Your task to perform on an android device: allow cookies in the chrome app Image 0: 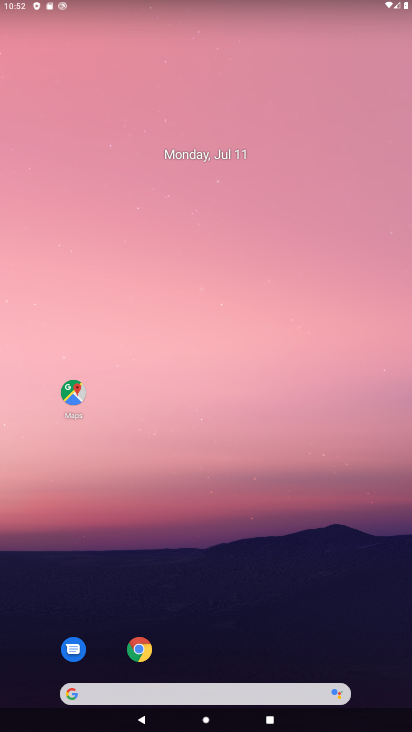
Step 0: click (141, 647)
Your task to perform on an android device: allow cookies in the chrome app Image 1: 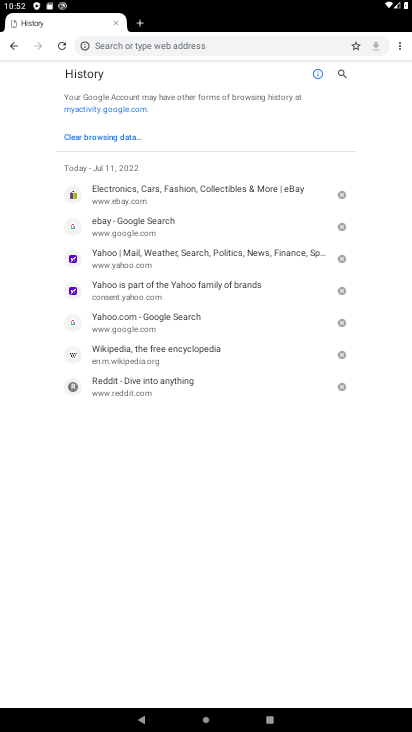
Step 1: click (401, 46)
Your task to perform on an android device: allow cookies in the chrome app Image 2: 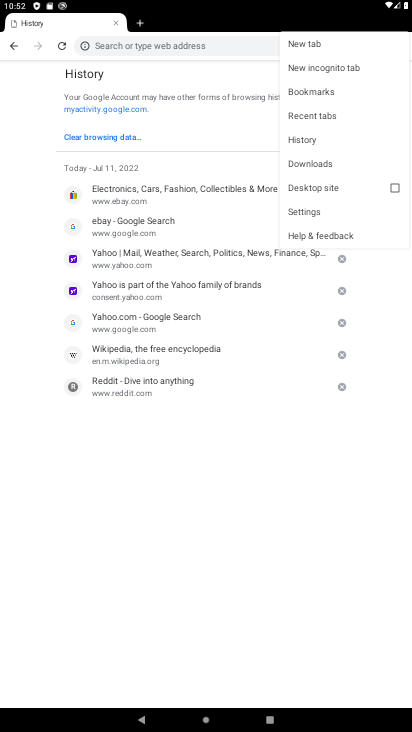
Step 2: click (315, 210)
Your task to perform on an android device: allow cookies in the chrome app Image 3: 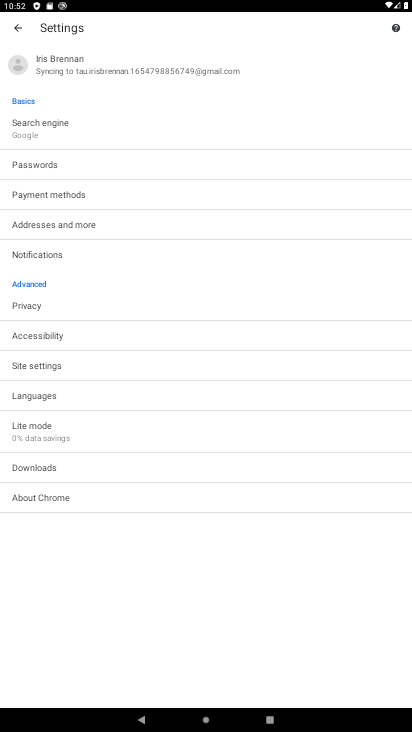
Step 3: click (50, 366)
Your task to perform on an android device: allow cookies in the chrome app Image 4: 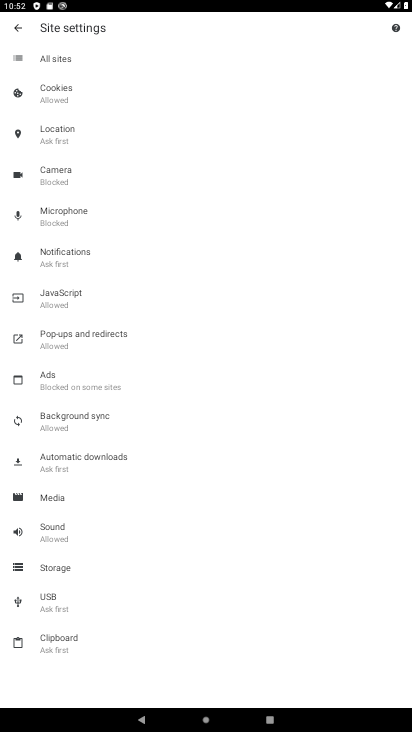
Step 4: click (80, 90)
Your task to perform on an android device: allow cookies in the chrome app Image 5: 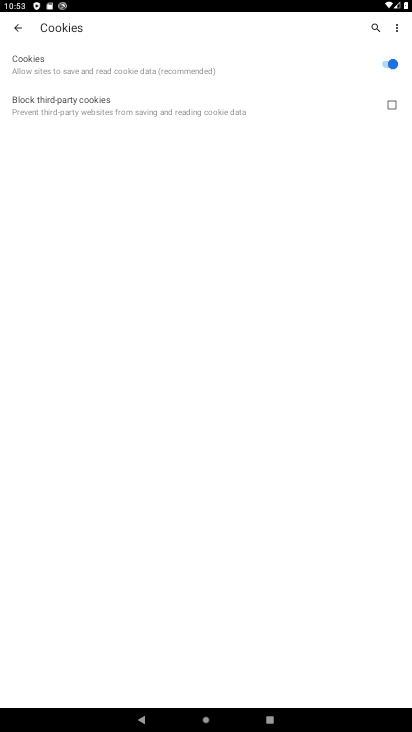
Step 5: click (385, 106)
Your task to perform on an android device: allow cookies in the chrome app Image 6: 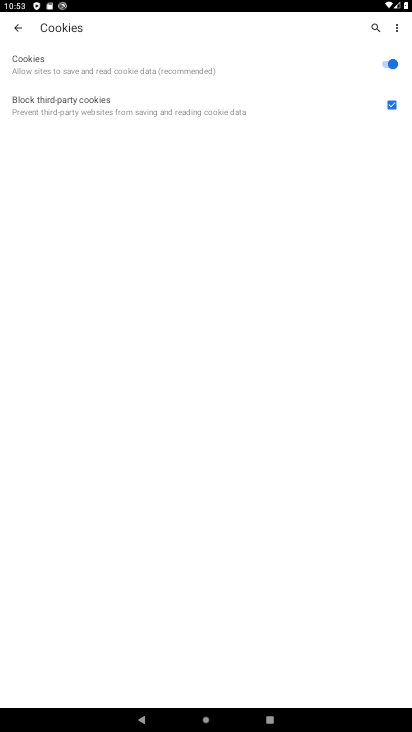
Step 6: task complete